Your task to perform on an android device: What's the weather? Image 0: 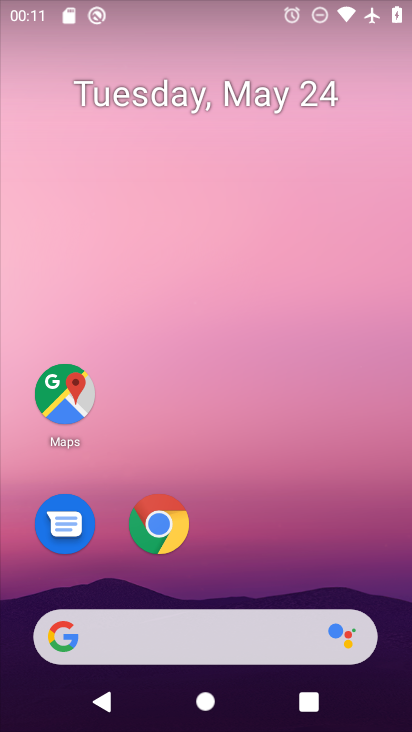
Step 0: drag from (193, 563) to (159, 190)
Your task to perform on an android device: What's the weather? Image 1: 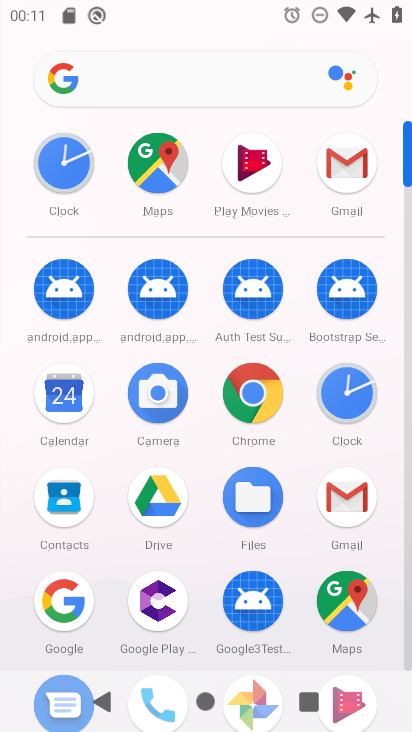
Step 1: click (77, 604)
Your task to perform on an android device: What's the weather? Image 2: 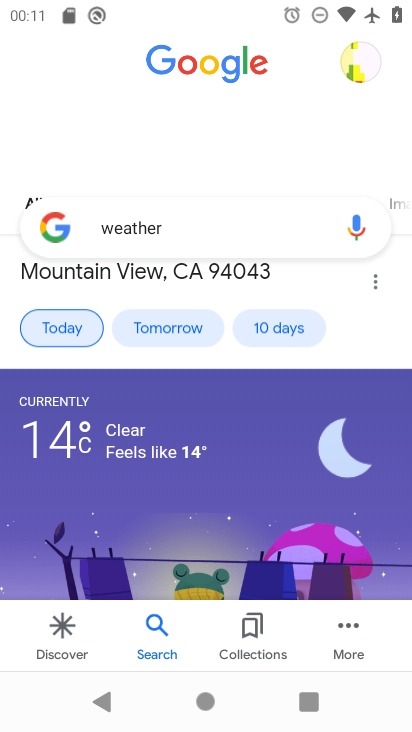
Step 2: task complete